Your task to perform on an android device: star an email in the gmail app Image 0: 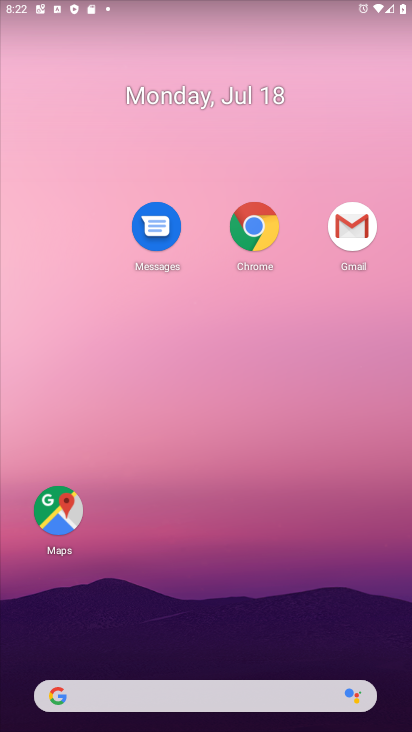
Step 0: click (355, 221)
Your task to perform on an android device: star an email in the gmail app Image 1: 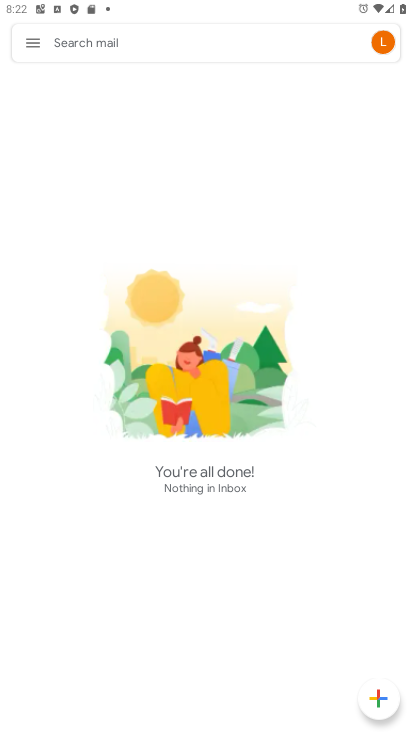
Step 1: click (28, 40)
Your task to perform on an android device: star an email in the gmail app Image 2: 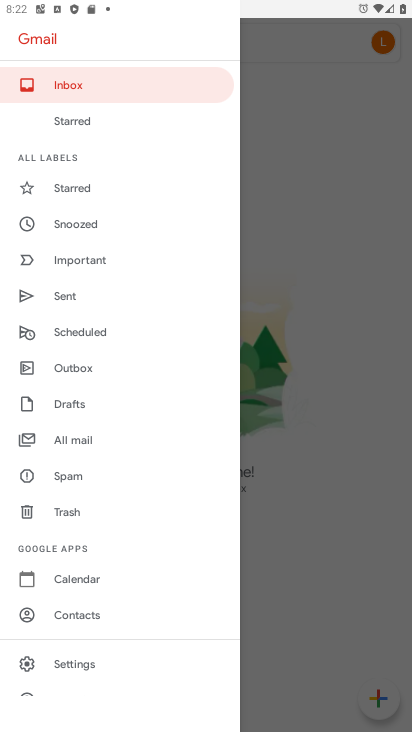
Step 2: click (96, 438)
Your task to perform on an android device: star an email in the gmail app Image 3: 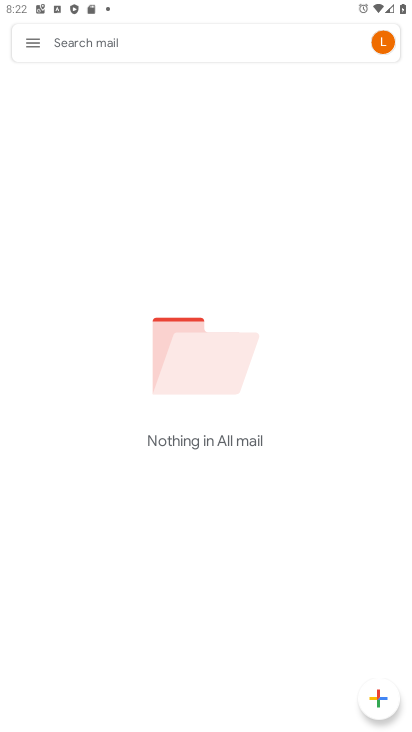
Step 3: task complete